Your task to perform on an android device: Open Wikipedia Image 0: 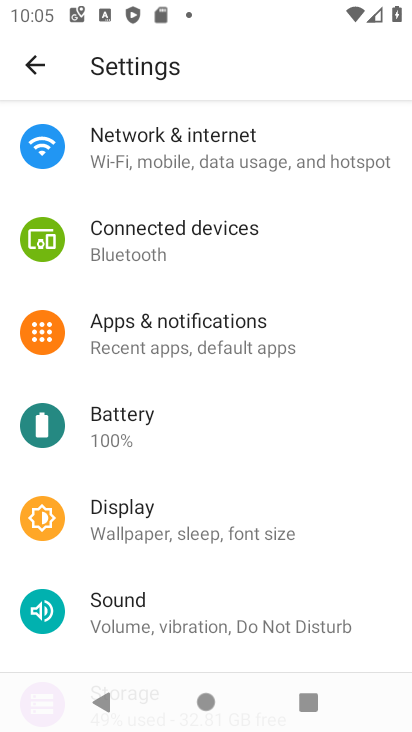
Step 0: press home button
Your task to perform on an android device: Open Wikipedia Image 1: 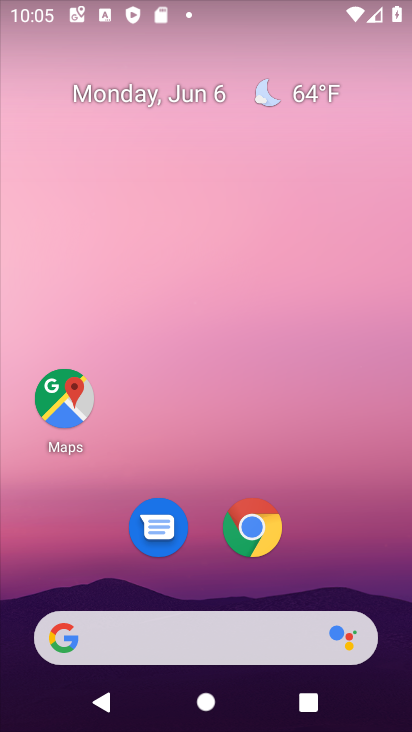
Step 1: drag from (255, 613) to (277, 169)
Your task to perform on an android device: Open Wikipedia Image 2: 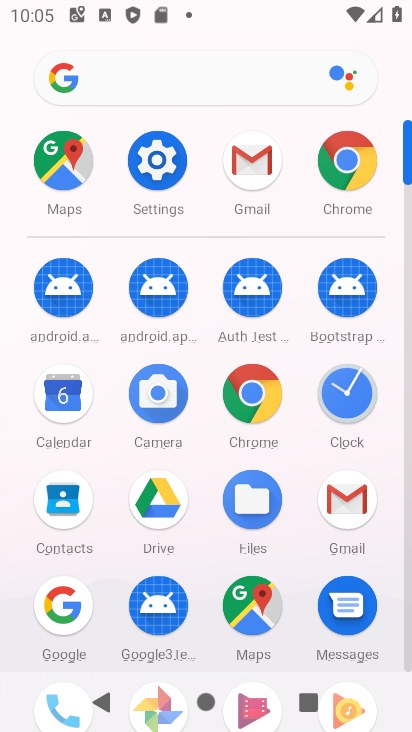
Step 2: click (333, 173)
Your task to perform on an android device: Open Wikipedia Image 3: 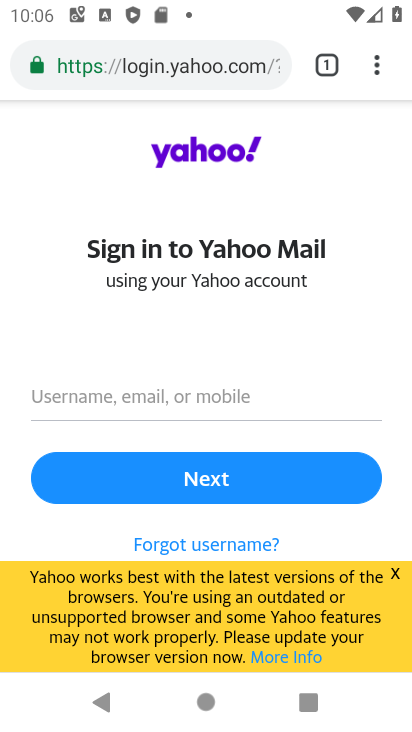
Step 3: drag from (312, 57) to (244, 391)
Your task to perform on an android device: Open Wikipedia Image 4: 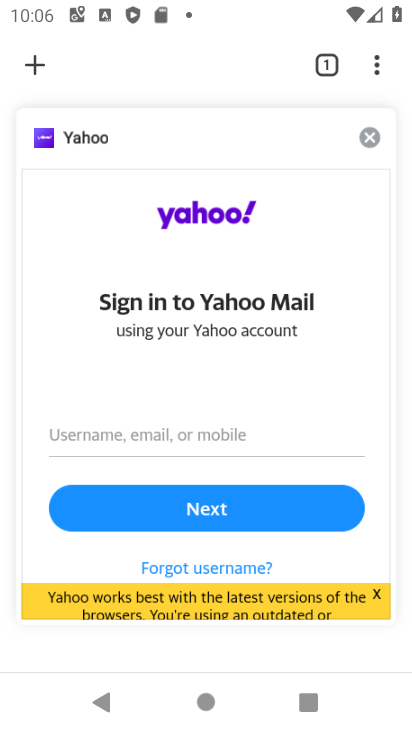
Step 4: click (35, 66)
Your task to perform on an android device: Open Wikipedia Image 5: 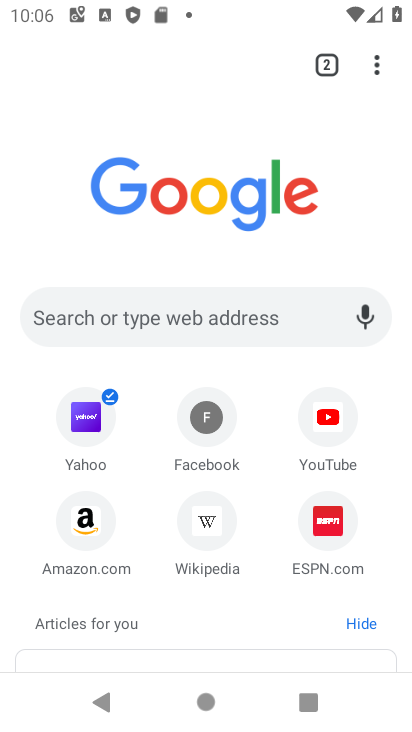
Step 5: click (214, 525)
Your task to perform on an android device: Open Wikipedia Image 6: 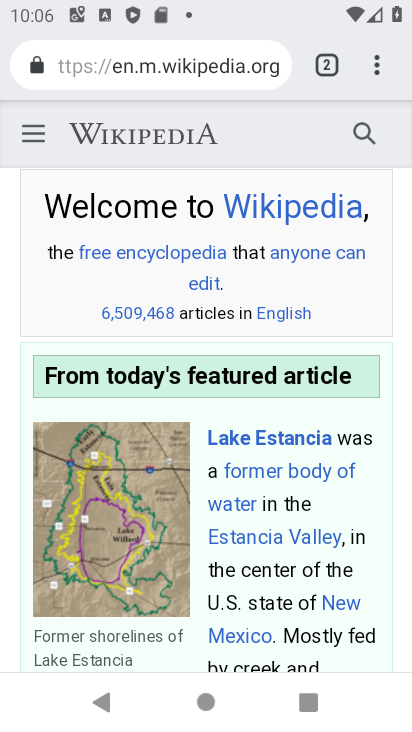
Step 6: task complete